Your task to perform on an android device: Open eBay Image 0: 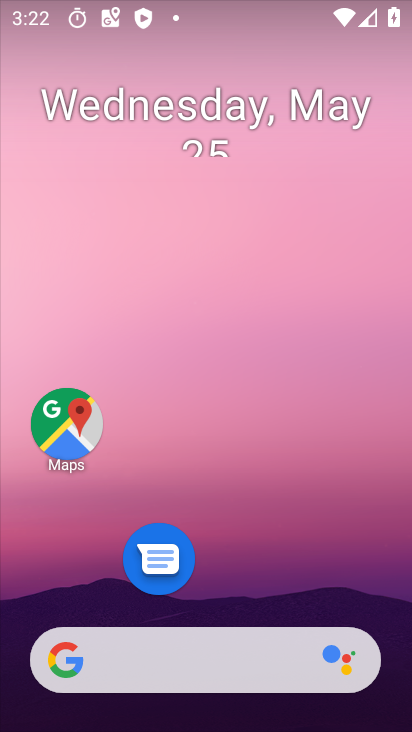
Step 0: drag from (232, 598) to (263, 176)
Your task to perform on an android device: Open eBay Image 1: 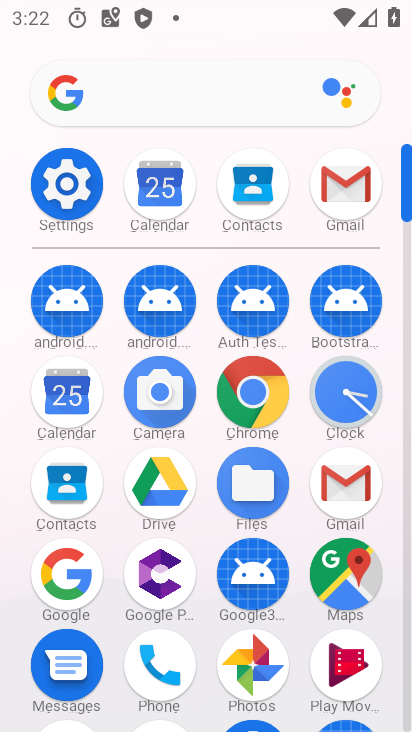
Step 1: click (252, 382)
Your task to perform on an android device: Open eBay Image 2: 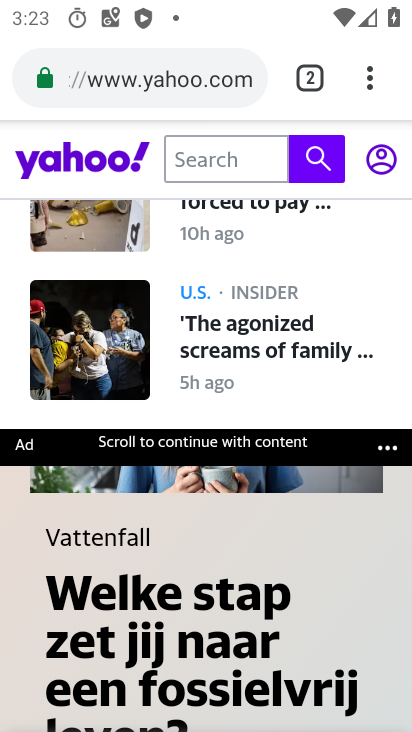
Step 2: click (310, 83)
Your task to perform on an android device: Open eBay Image 3: 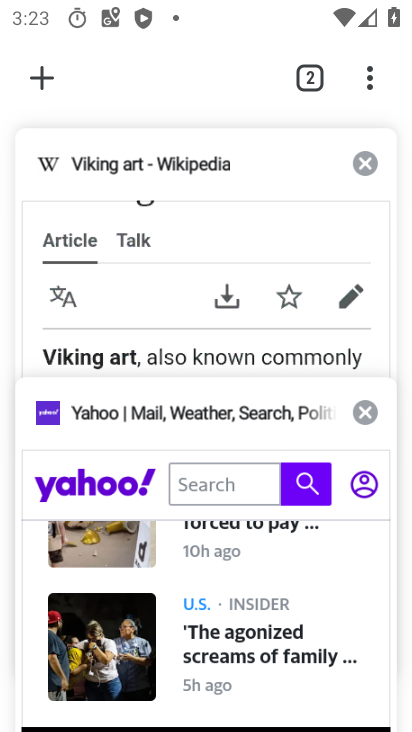
Step 3: click (366, 170)
Your task to perform on an android device: Open eBay Image 4: 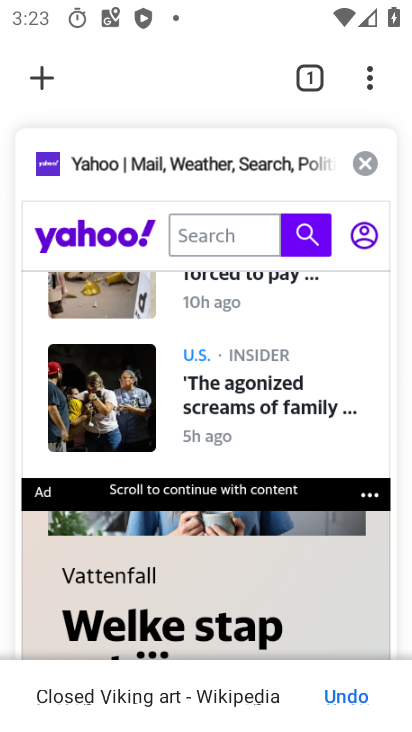
Step 4: click (366, 164)
Your task to perform on an android device: Open eBay Image 5: 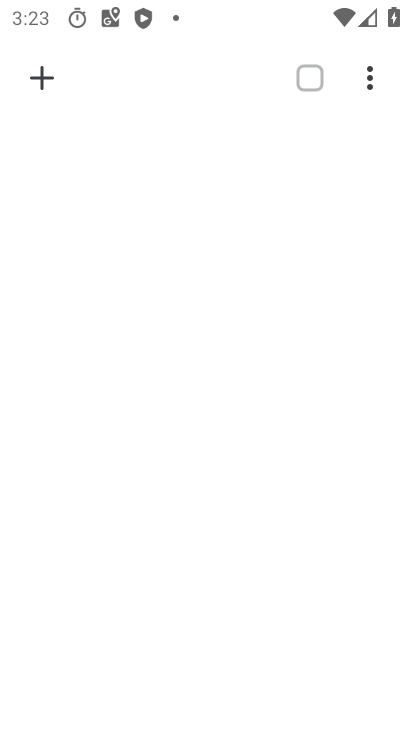
Step 5: click (43, 78)
Your task to perform on an android device: Open eBay Image 6: 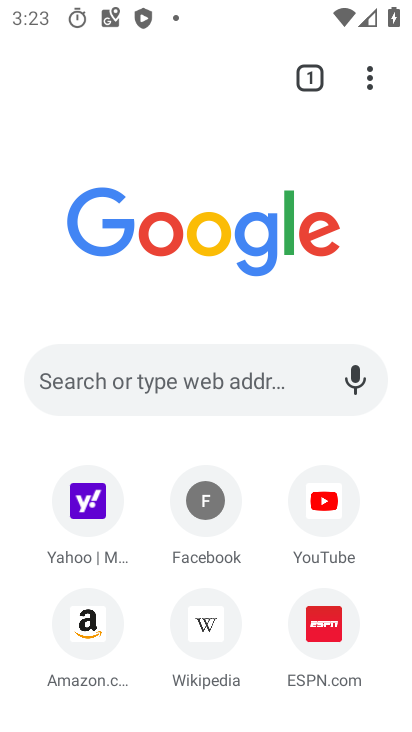
Step 6: click (130, 378)
Your task to perform on an android device: Open eBay Image 7: 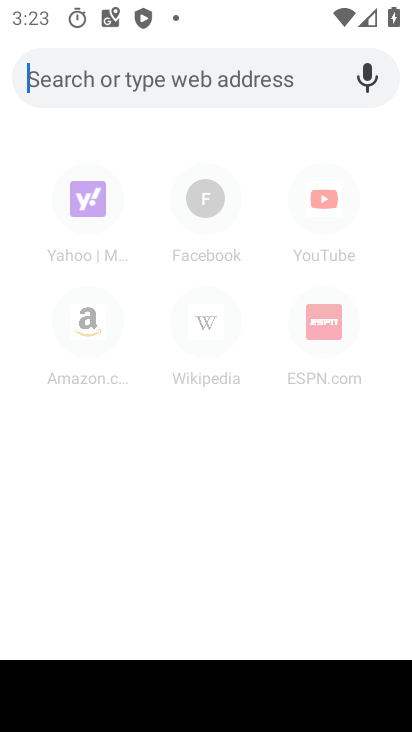
Step 7: type "ebay"
Your task to perform on an android device: Open eBay Image 8: 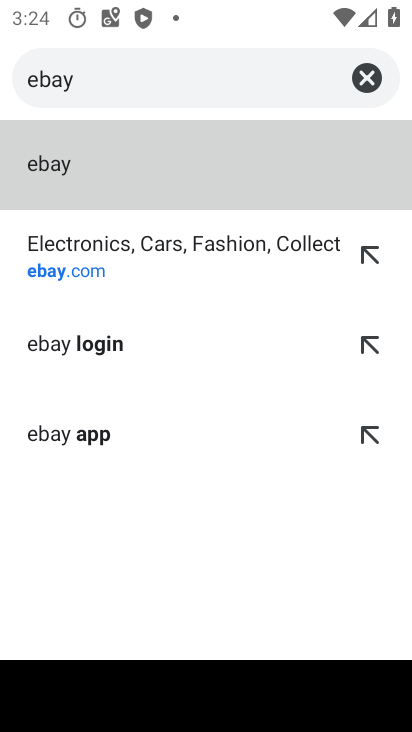
Step 8: click (142, 259)
Your task to perform on an android device: Open eBay Image 9: 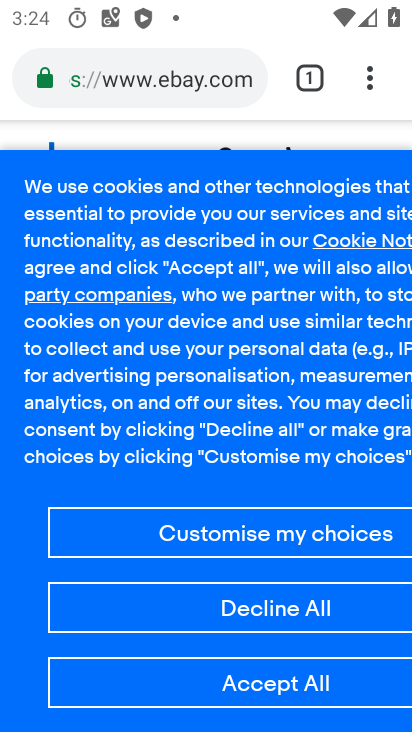
Step 9: click (289, 682)
Your task to perform on an android device: Open eBay Image 10: 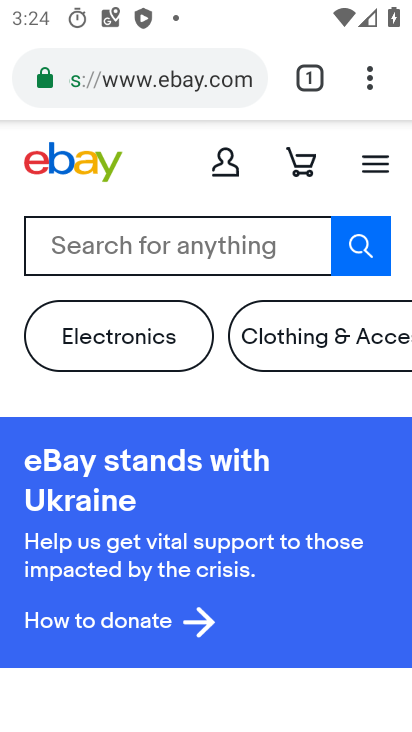
Step 10: drag from (248, 680) to (284, 177)
Your task to perform on an android device: Open eBay Image 11: 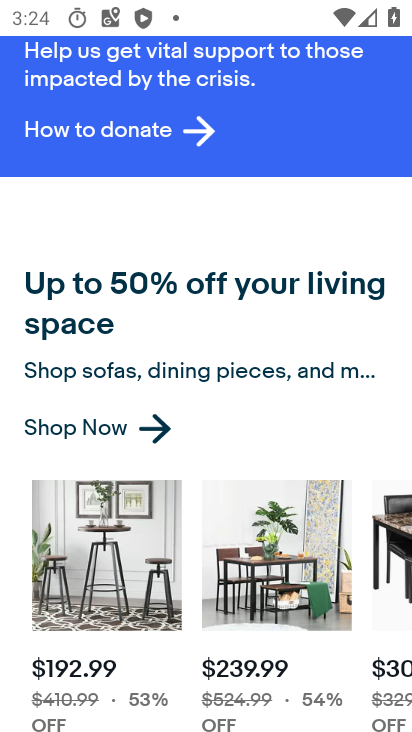
Step 11: drag from (195, 642) to (181, 246)
Your task to perform on an android device: Open eBay Image 12: 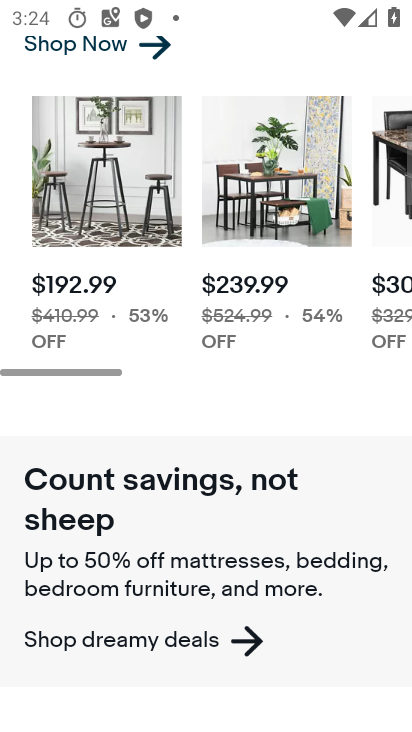
Step 12: click (183, 209)
Your task to perform on an android device: Open eBay Image 13: 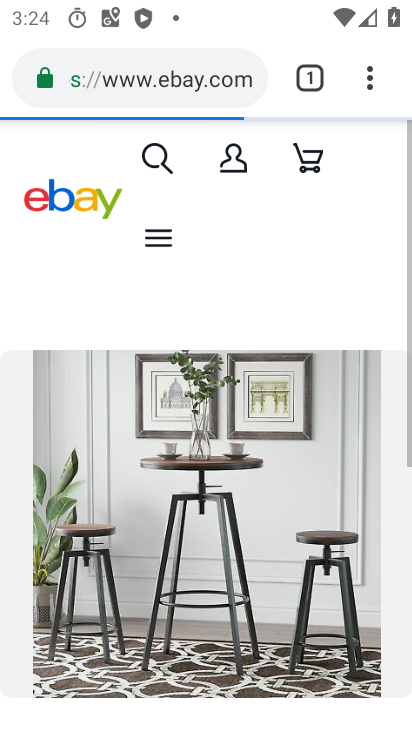
Step 13: task complete